Your task to perform on an android device: turn on location history Image 0: 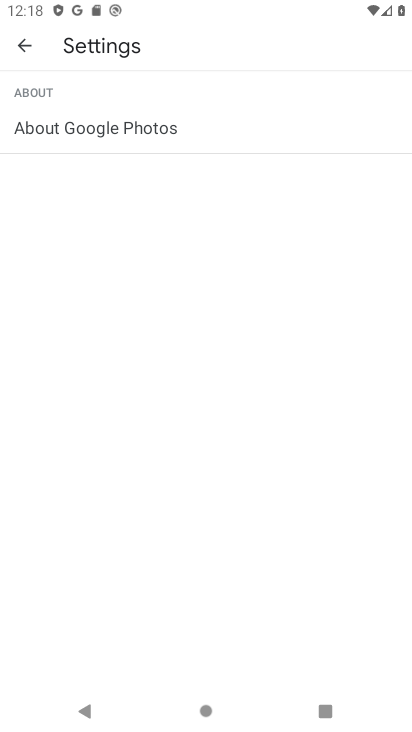
Step 0: press back button
Your task to perform on an android device: turn on location history Image 1: 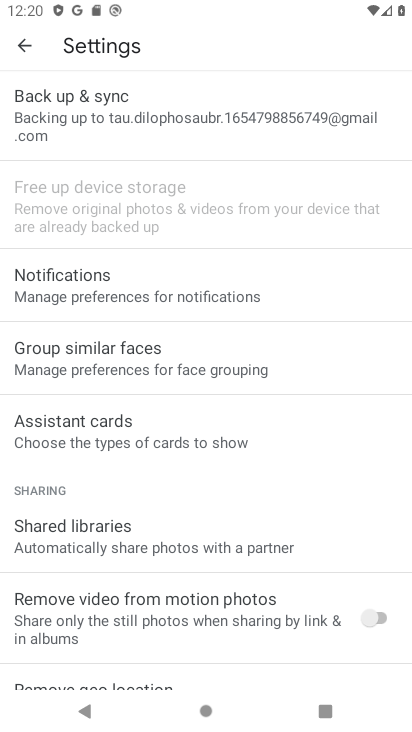
Step 1: click (27, 52)
Your task to perform on an android device: turn on location history Image 2: 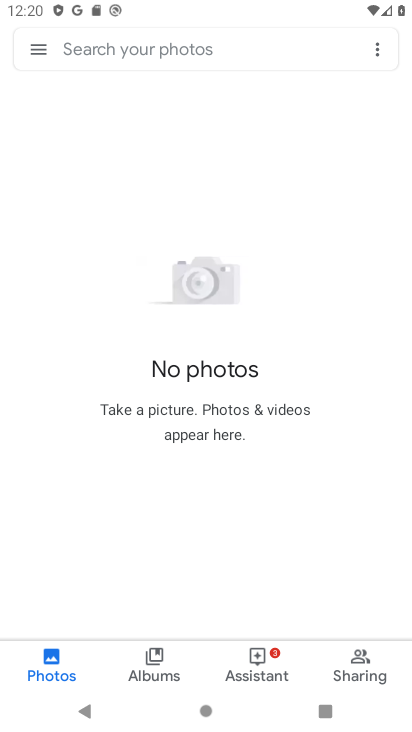
Step 2: click (41, 51)
Your task to perform on an android device: turn on location history Image 3: 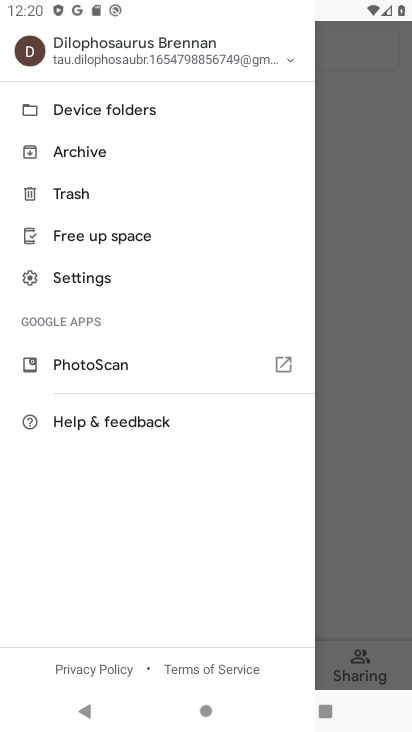
Step 3: press home button
Your task to perform on an android device: turn on location history Image 4: 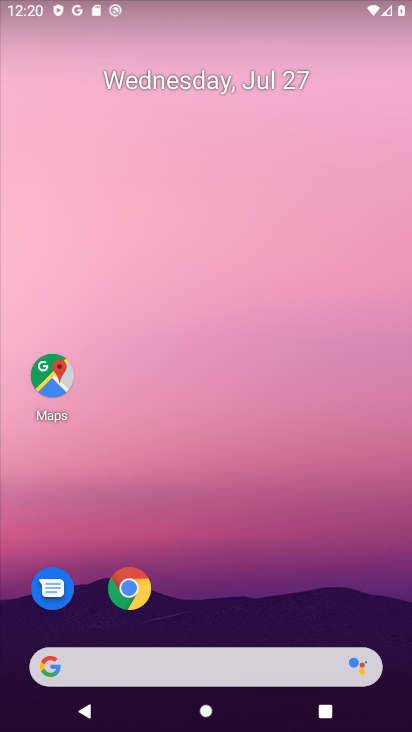
Step 4: drag from (405, 683) to (308, 79)
Your task to perform on an android device: turn on location history Image 5: 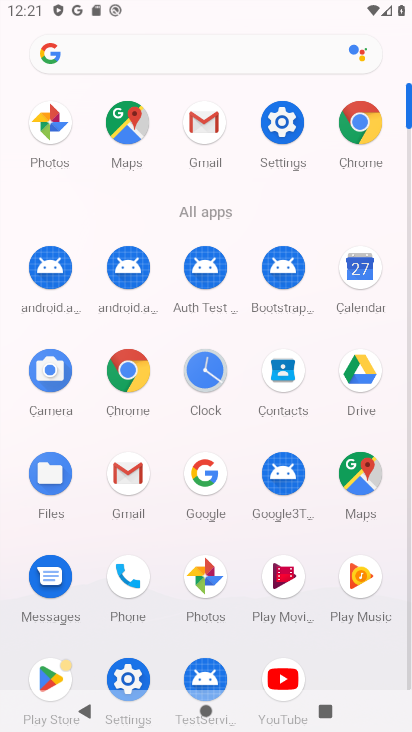
Step 5: click (277, 127)
Your task to perform on an android device: turn on location history Image 6: 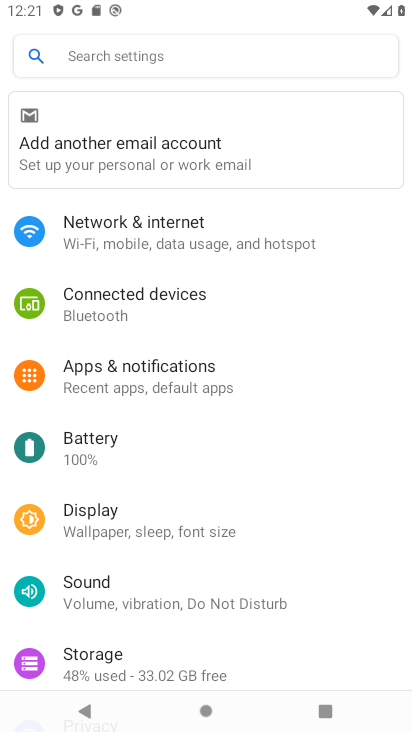
Step 6: drag from (281, 643) to (289, 273)
Your task to perform on an android device: turn on location history Image 7: 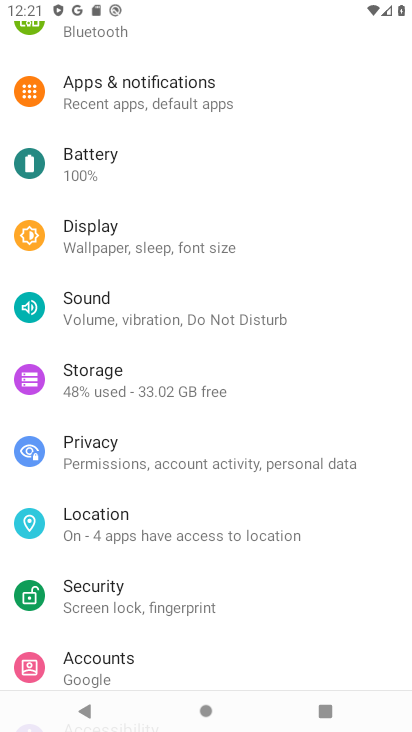
Step 7: click (85, 516)
Your task to perform on an android device: turn on location history Image 8: 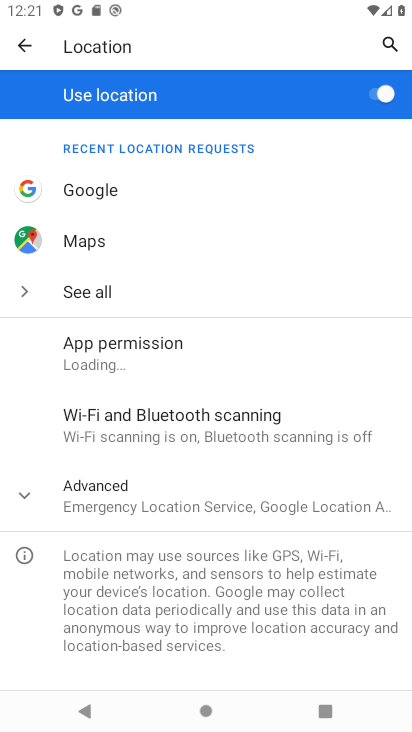
Step 8: click (21, 486)
Your task to perform on an android device: turn on location history Image 9: 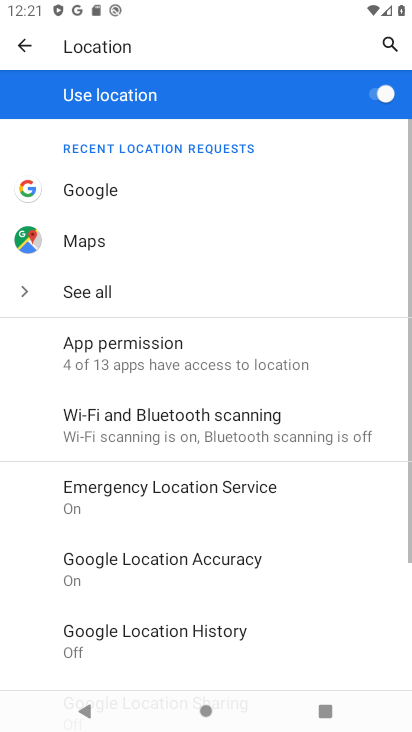
Step 9: click (149, 641)
Your task to perform on an android device: turn on location history Image 10: 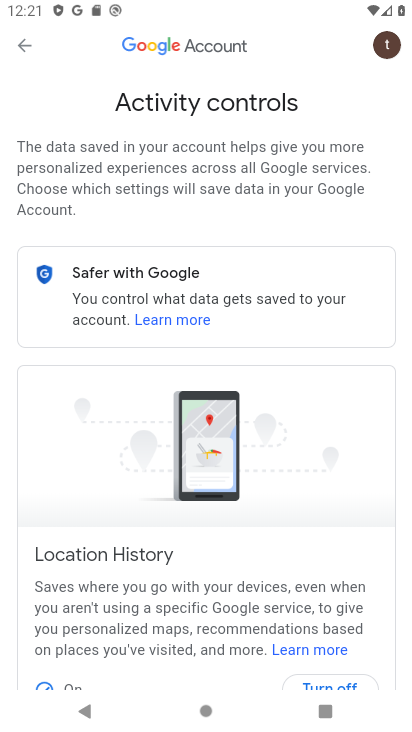
Step 10: drag from (321, 580) to (298, 173)
Your task to perform on an android device: turn on location history Image 11: 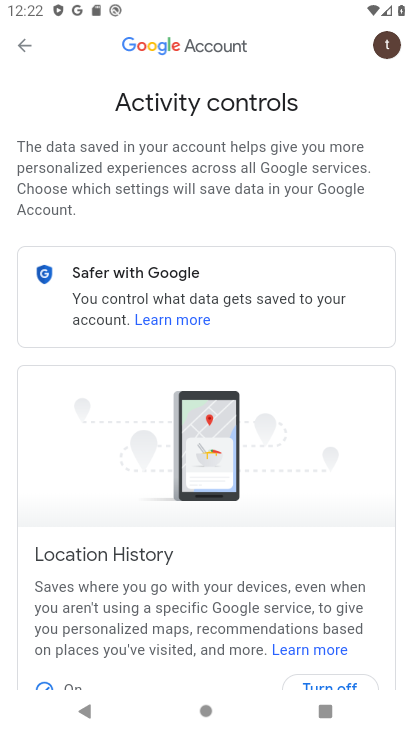
Step 11: drag from (328, 468) to (326, 305)
Your task to perform on an android device: turn on location history Image 12: 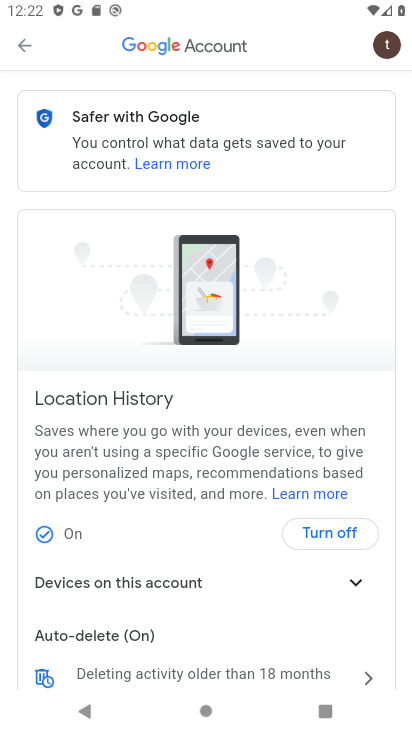
Step 12: click (62, 529)
Your task to perform on an android device: turn on location history Image 13: 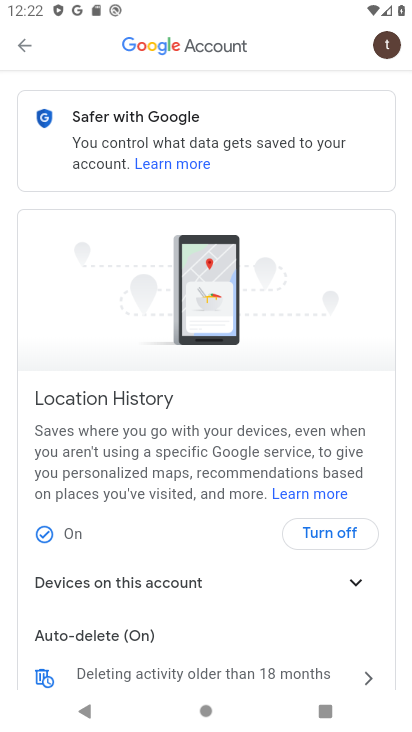
Step 13: click (334, 529)
Your task to perform on an android device: turn on location history Image 14: 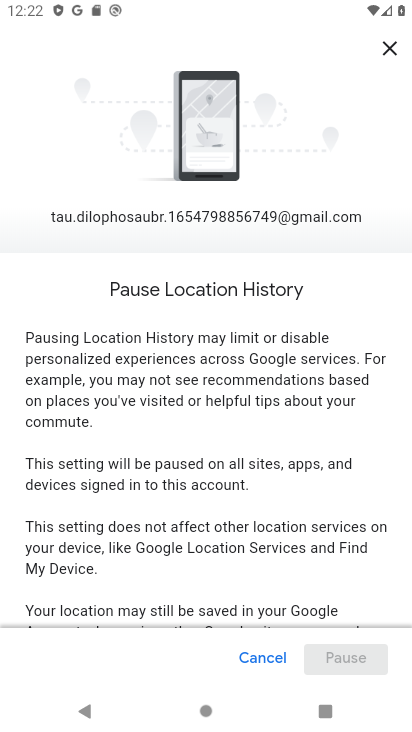
Step 14: drag from (306, 554) to (310, 221)
Your task to perform on an android device: turn on location history Image 15: 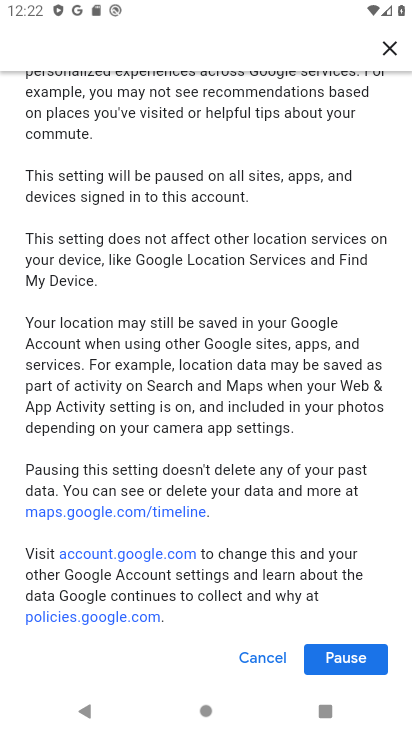
Step 15: click (330, 656)
Your task to perform on an android device: turn on location history Image 16: 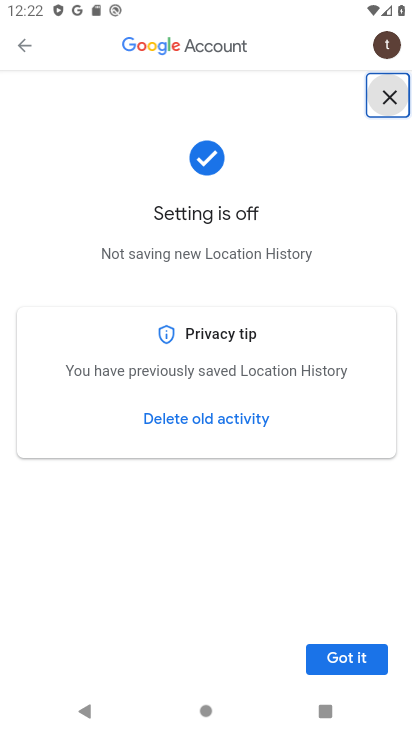
Step 16: task complete